Your task to perform on an android device: turn on data saver in the chrome app Image 0: 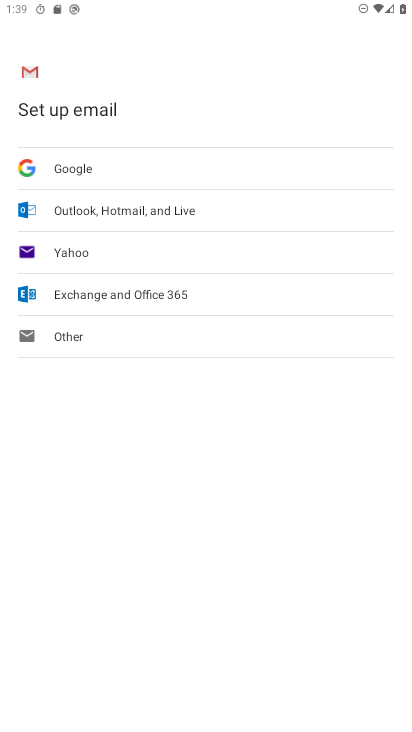
Step 0: press home button
Your task to perform on an android device: turn on data saver in the chrome app Image 1: 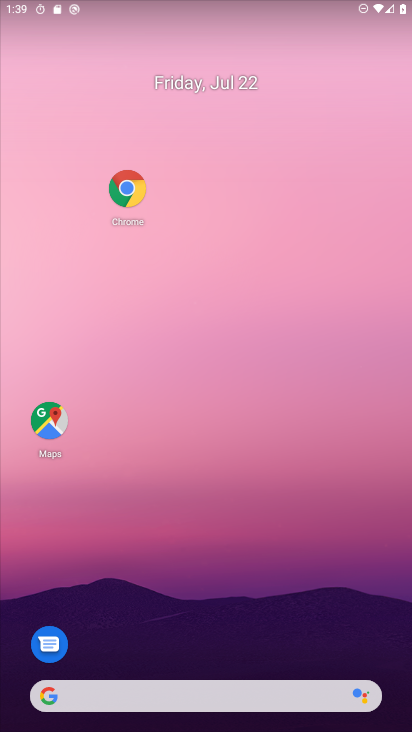
Step 1: click (126, 180)
Your task to perform on an android device: turn on data saver in the chrome app Image 2: 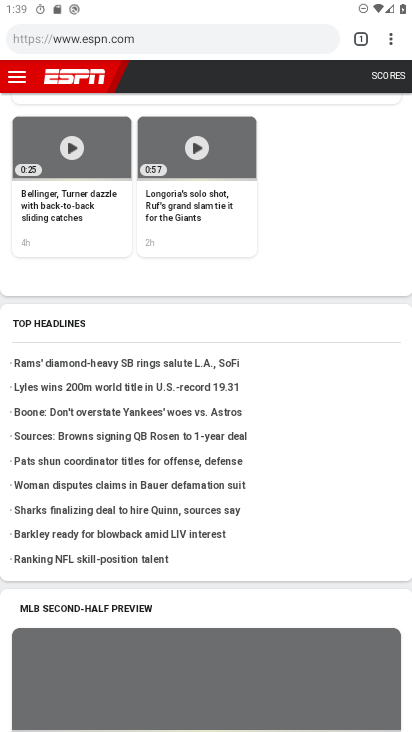
Step 2: click (379, 41)
Your task to perform on an android device: turn on data saver in the chrome app Image 3: 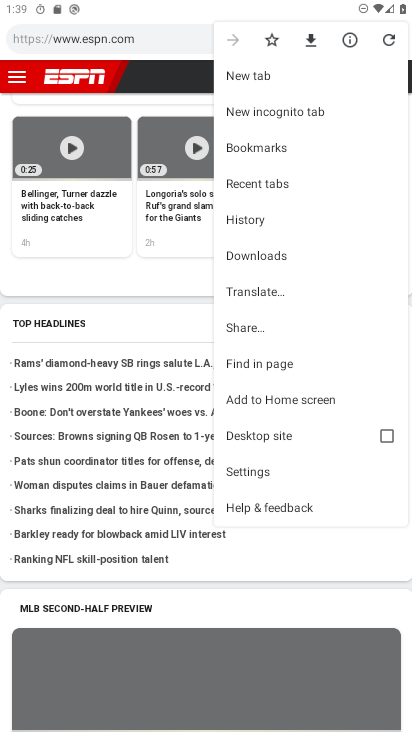
Step 3: click (252, 481)
Your task to perform on an android device: turn on data saver in the chrome app Image 4: 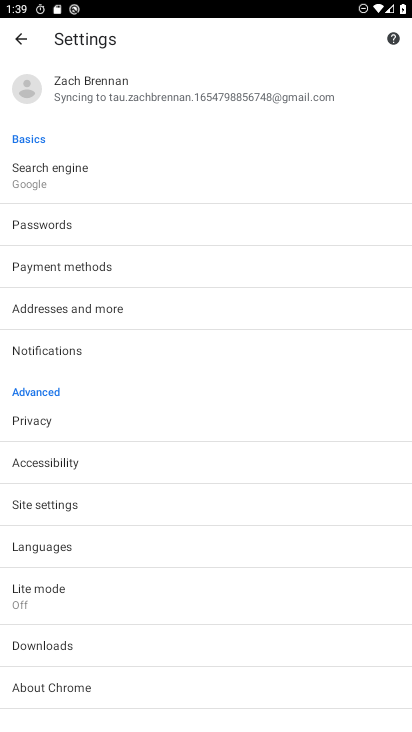
Step 4: click (38, 603)
Your task to perform on an android device: turn on data saver in the chrome app Image 5: 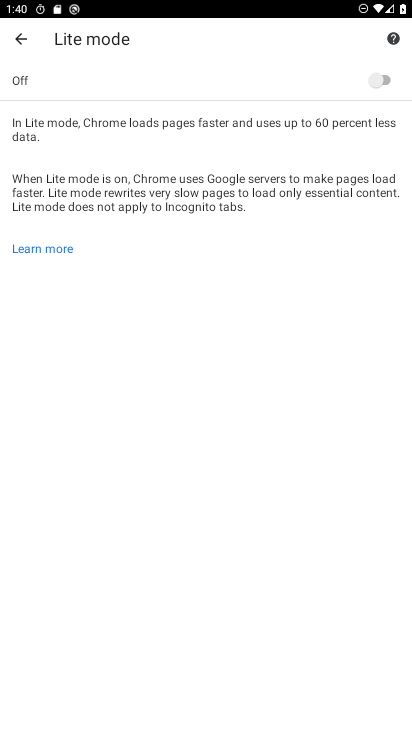
Step 5: click (383, 86)
Your task to perform on an android device: turn on data saver in the chrome app Image 6: 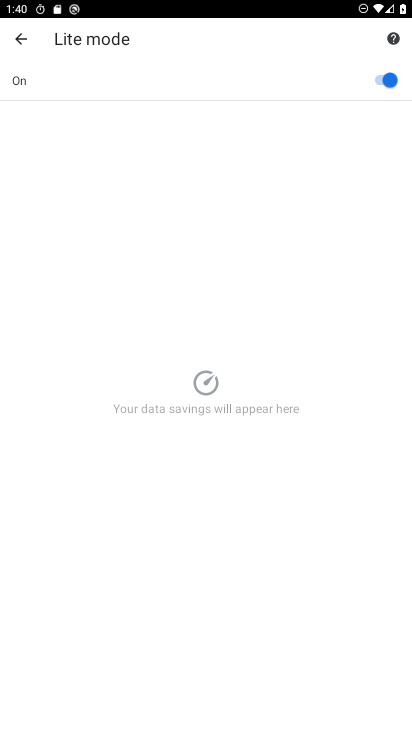
Step 6: task complete